Your task to perform on an android device: Search for jbl flip 4 on target, select the first entry, add it to the cart, then select checkout. Image 0: 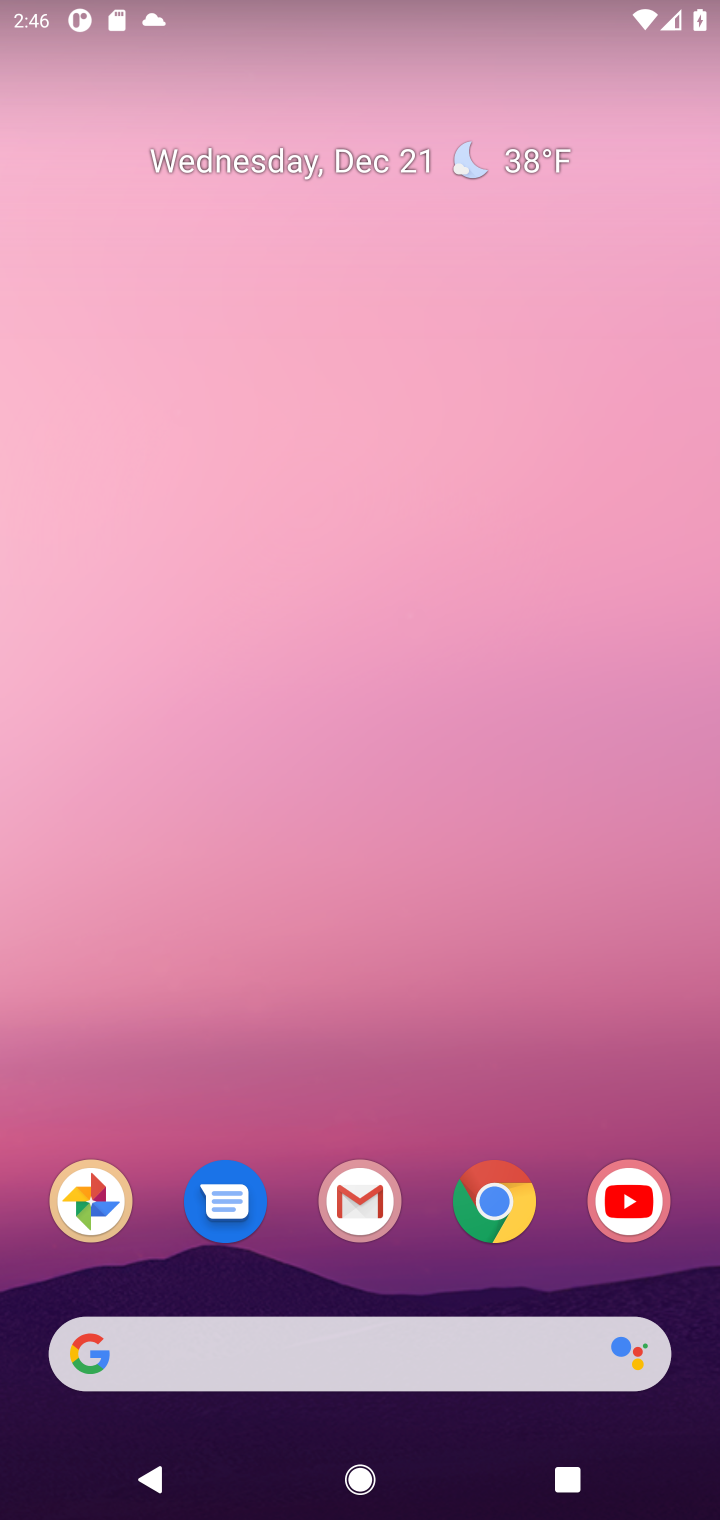
Step 0: click (496, 1205)
Your task to perform on an android device: Search for jbl flip 4 on target, select the first entry, add it to the cart, then select checkout. Image 1: 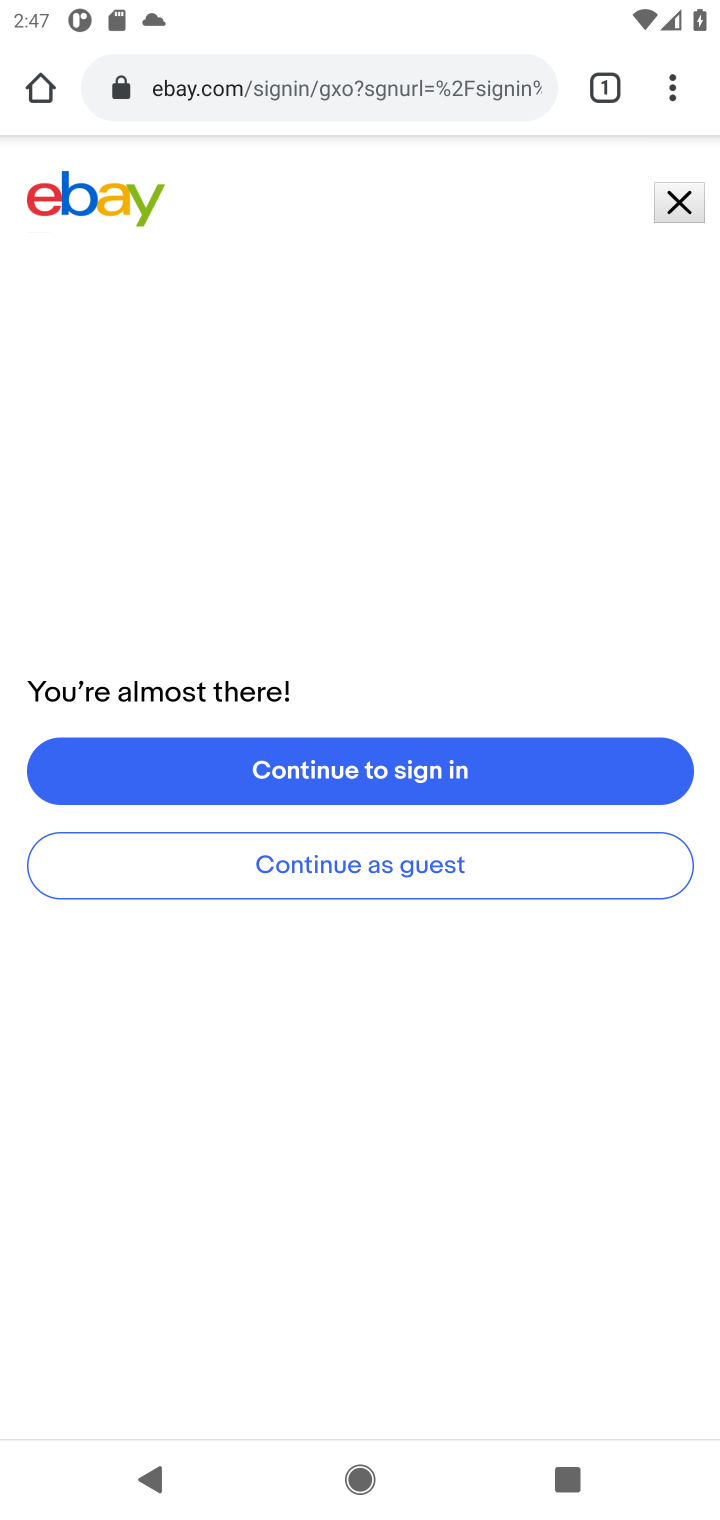
Step 1: click (268, 93)
Your task to perform on an android device: Search for jbl flip 4 on target, select the first entry, add it to the cart, then select checkout. Image 2: 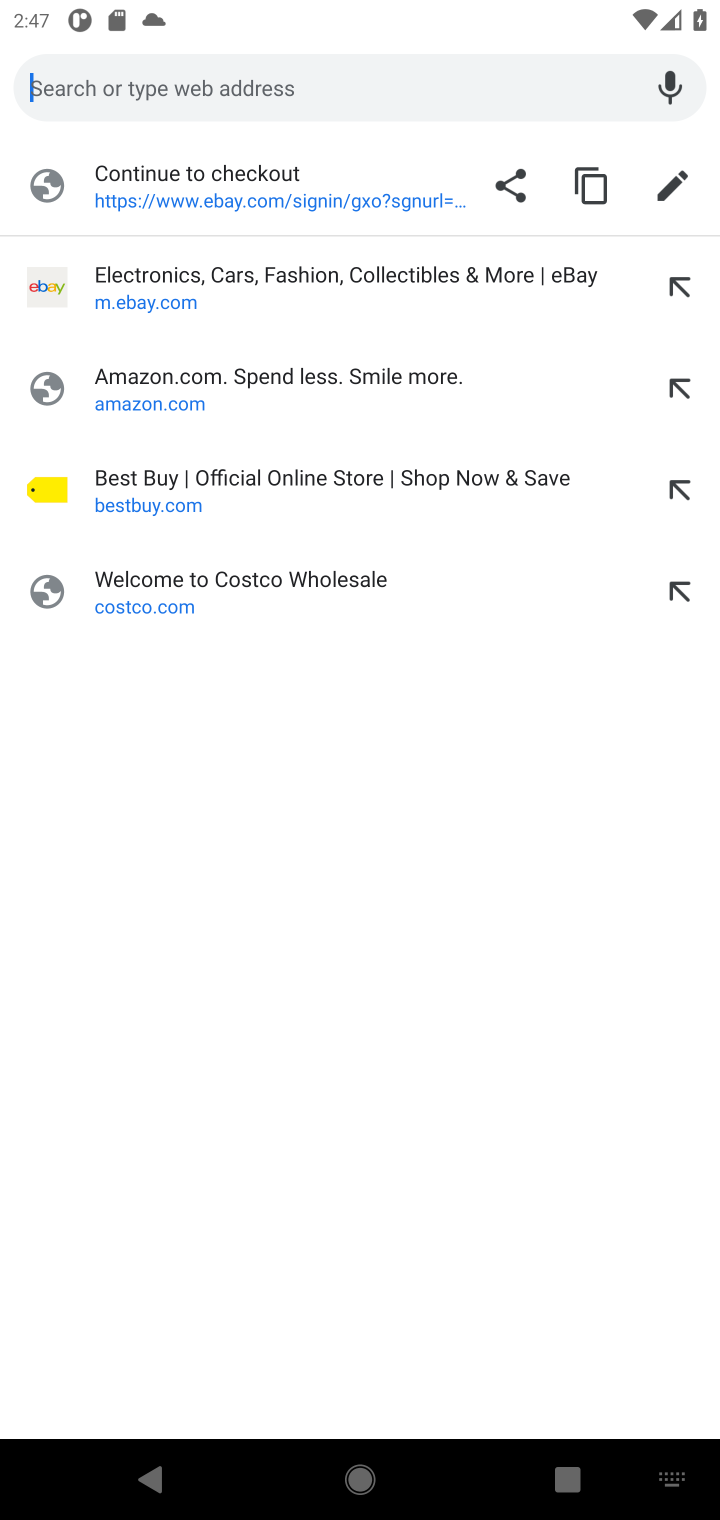
Step 2: type "target.com"
Your task to perform on an android device: Search for jbl flip 4 on target, select the first entry, add it to the cart, then select checkout. Image 3: 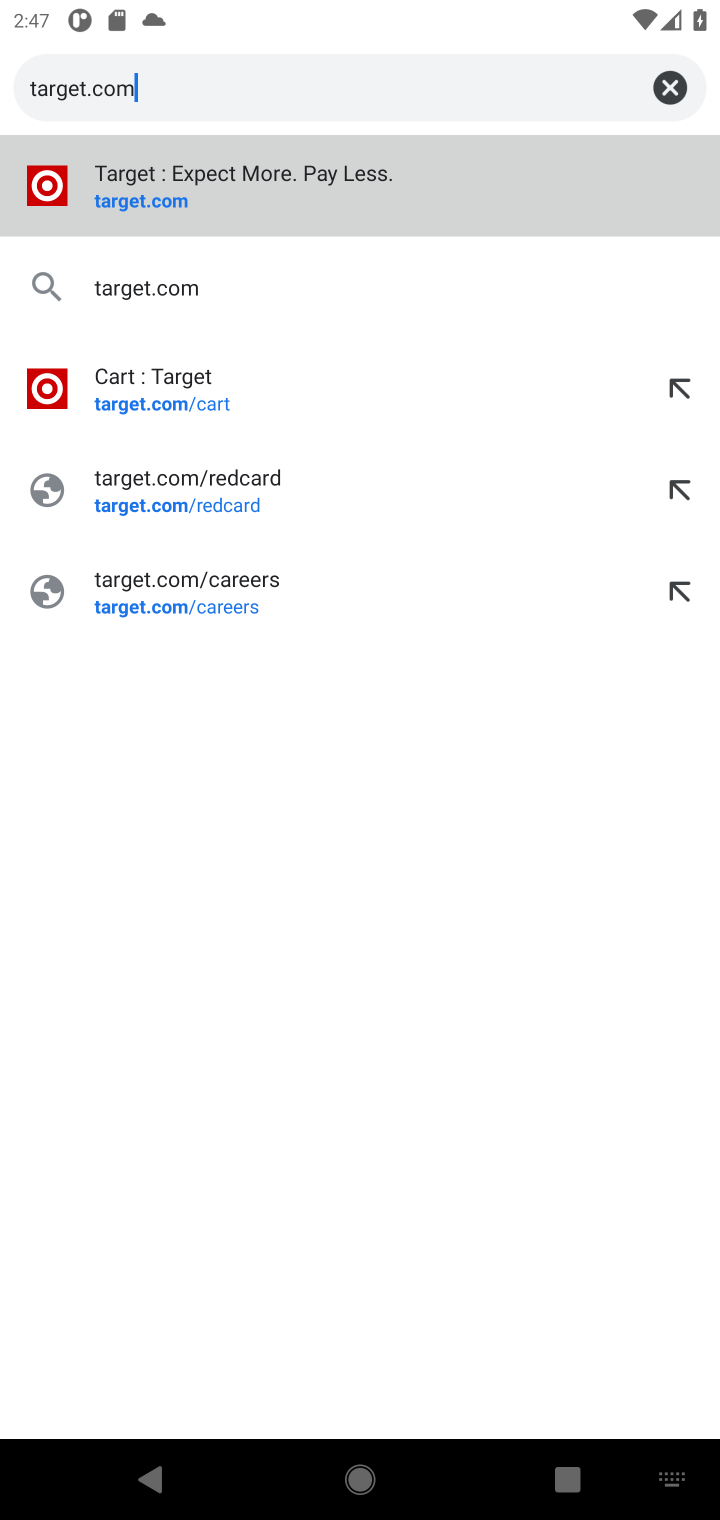
Step 3: click (166, 195)
Your task to perform on an android device: Search for jbl flip 4 on target, select the first entry, add it to the cart, then select checkout. Image 4: 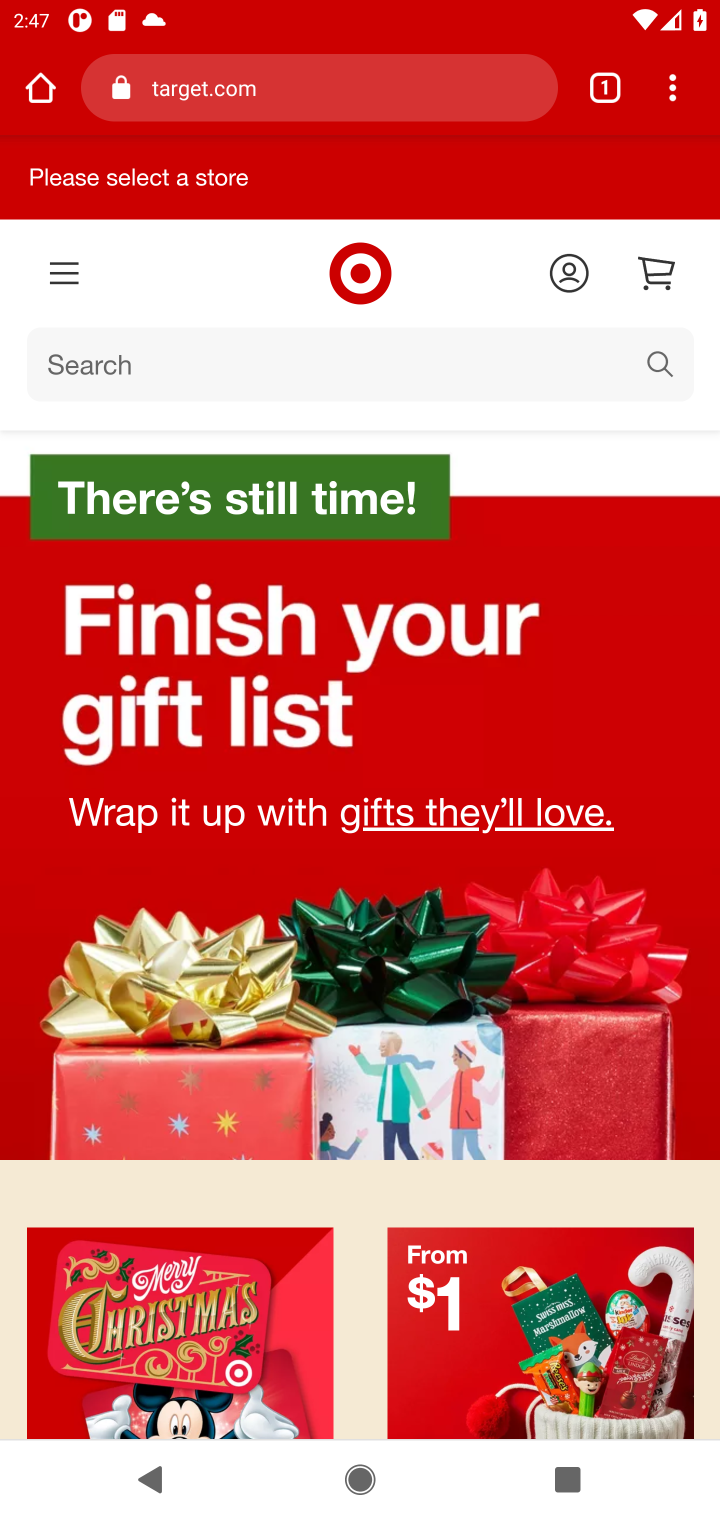
Step 4: click (62, 369)
Your task to perform on an android device: Search for jbl flip 4 on target, select the first entry, add it to the cart, then select checkout. Image 5: 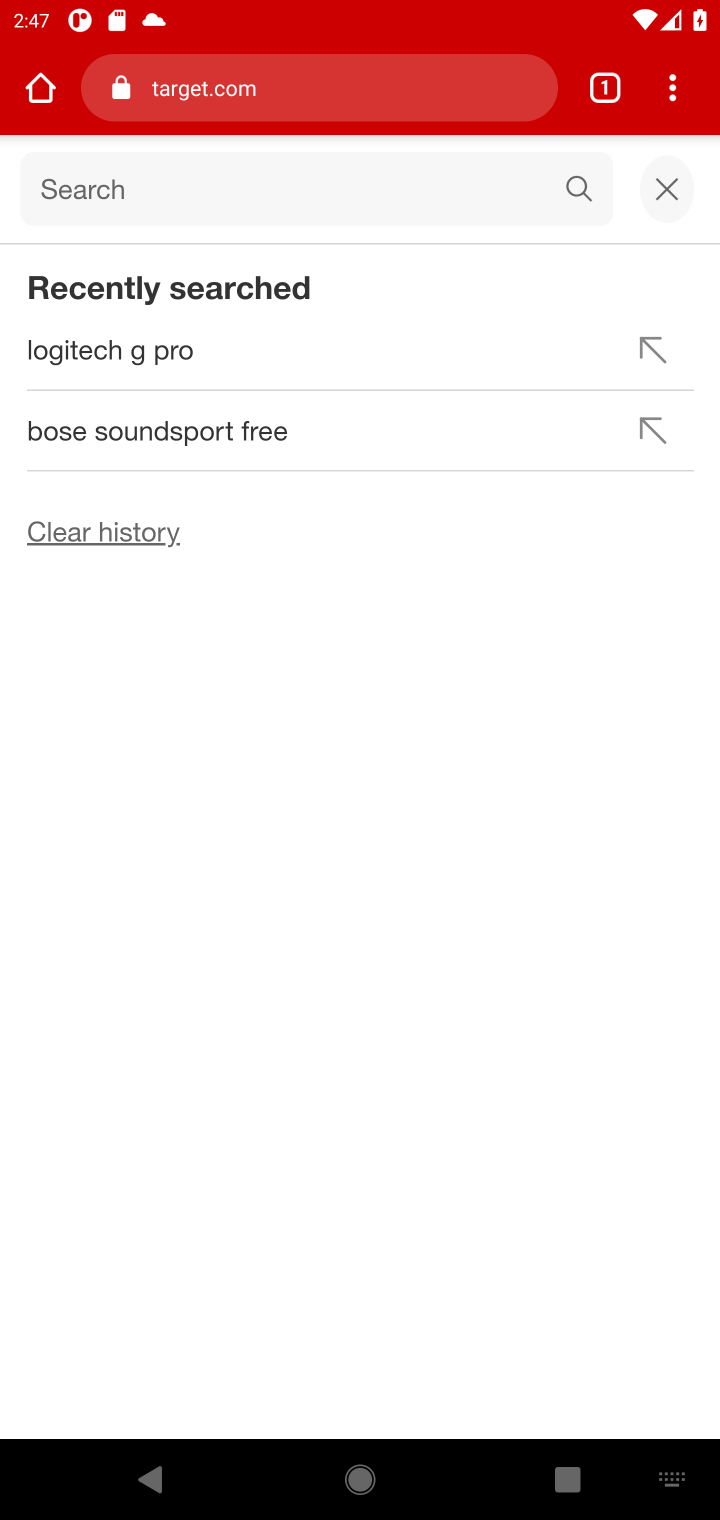
Step 5: type " jbl flip 4"
Your task to perform on an android device: Search for jbl flip 4 on target, select the first entry, add it to the cart, then select checkout. Image 6: 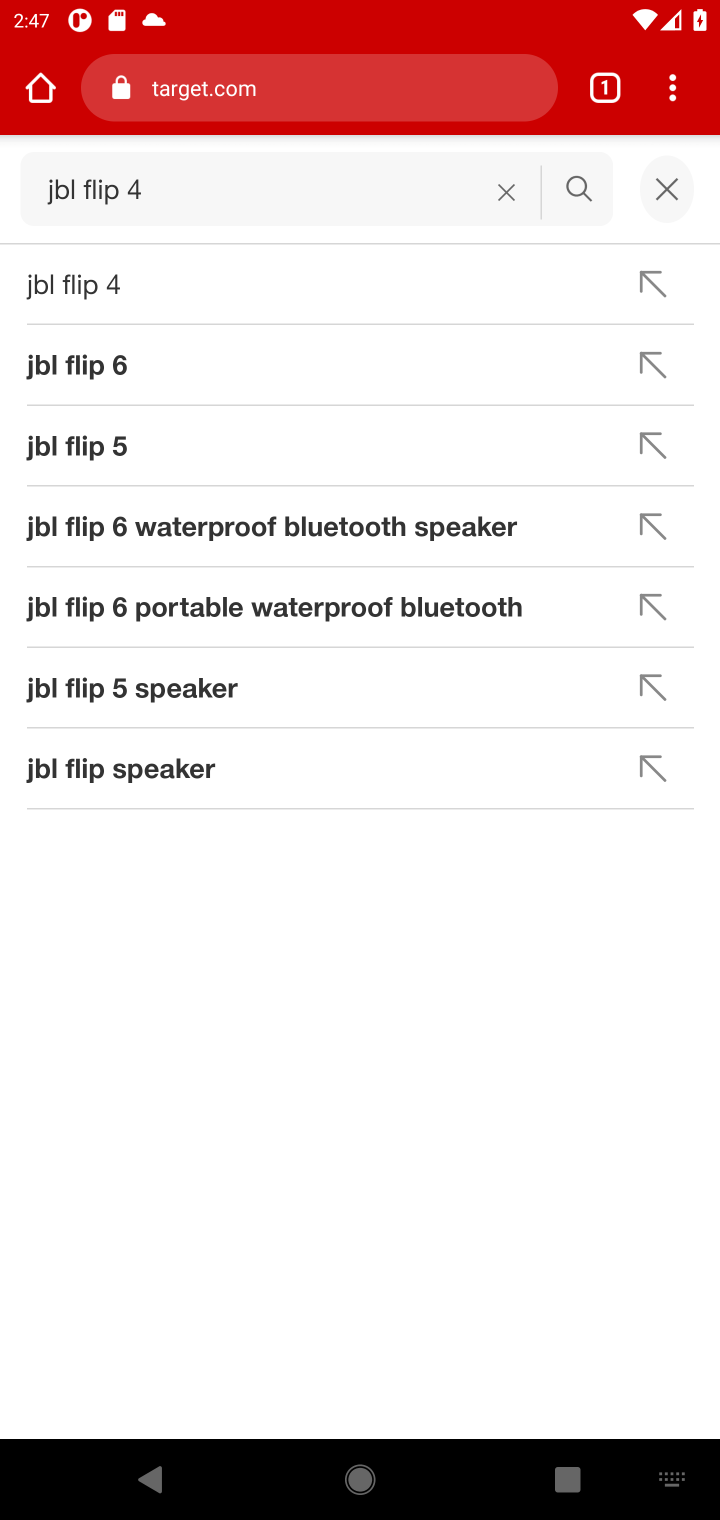
Step 6: click (57, 286)
Your task to perform on an android device: Search for jbl flip 4 on target, select the first entry, add it to the cart, then select checkout. Image 7: 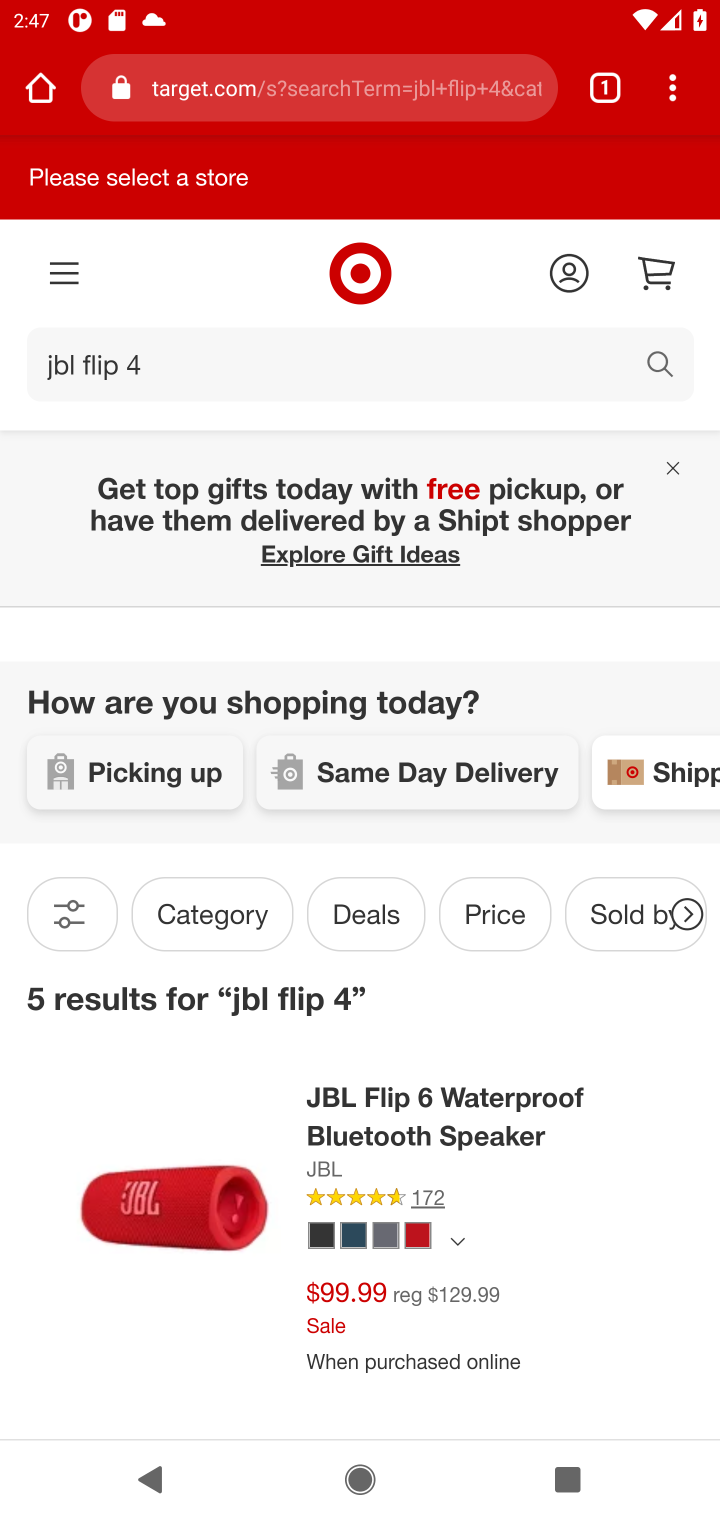
Step 7: task complete